Your task to perform on an android device: Open accessibility settings Image 0: 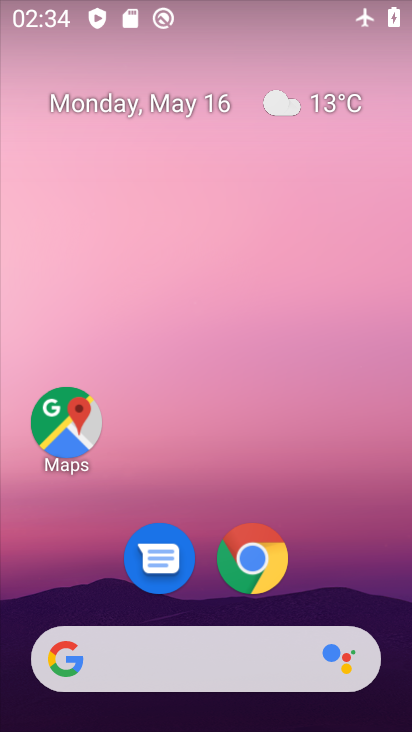
Step 0: click (136, 0)
Your task to perform on an android device: Open accessibility settings Image 1: 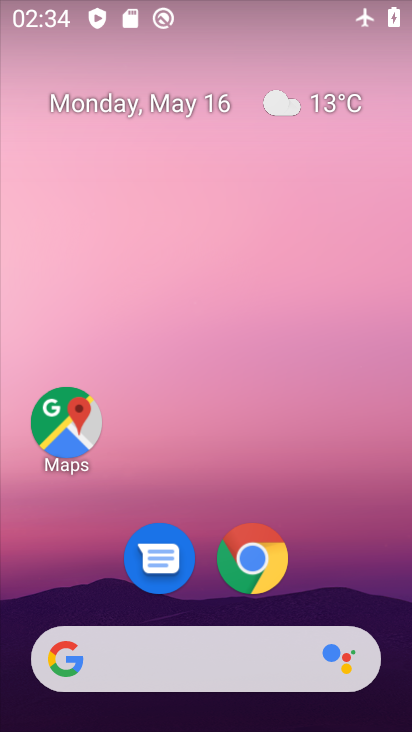
Step 1: drag from (209, 614) to (205, 24)
Your task to perform on an android device: Open accessibility settings Image 2: 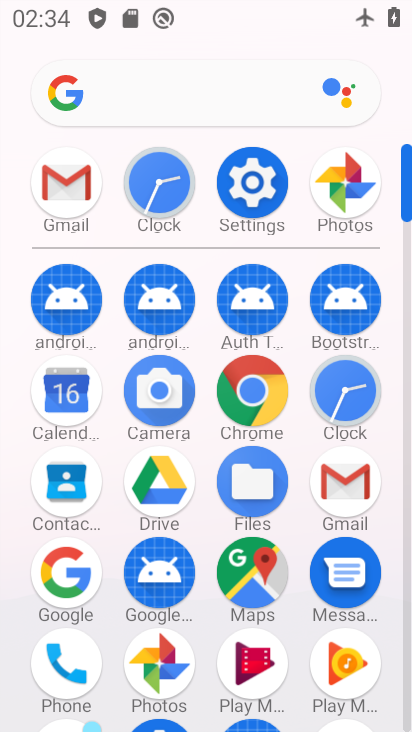
Step 2: click (237, 203)
Your task to perform on an android device: Open accessibility settings Image 3: 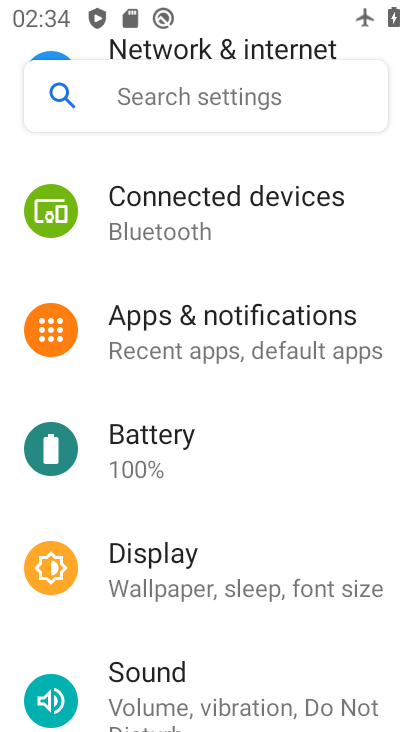
Step 3: drag from (268, 477) to (224, 123)
Your task to perform on an android device: Open accessibility settings Image 4: 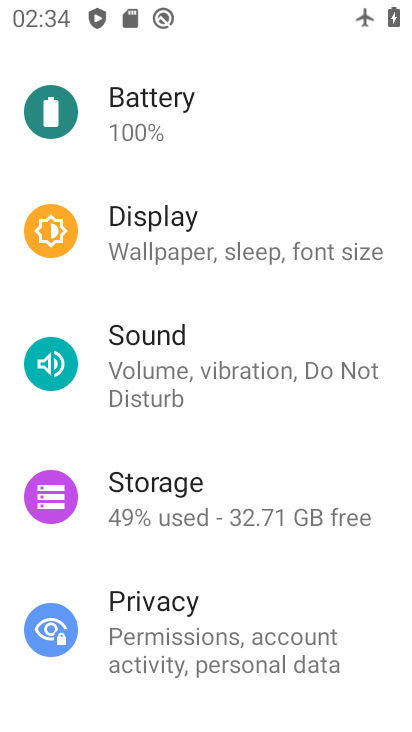
Step 4: drag from (228, 614) to (192, 124)
Your task to perform on an android device: Open accessibility settings Image 5: 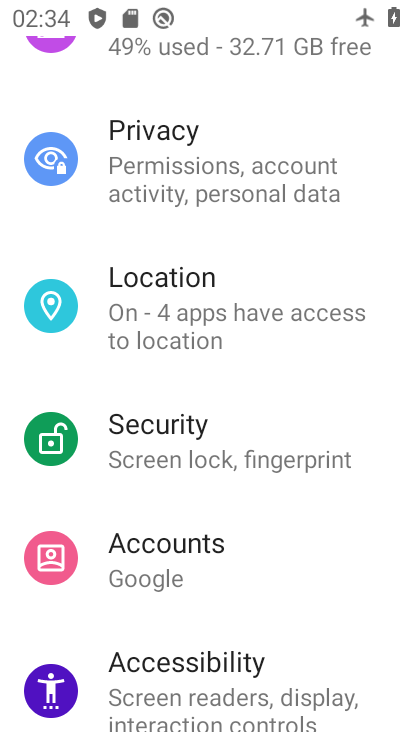
Step 5: drag from (253, 595) to (182, 224)
Your task to perform on an android device: Open accessibility settings Image 6: 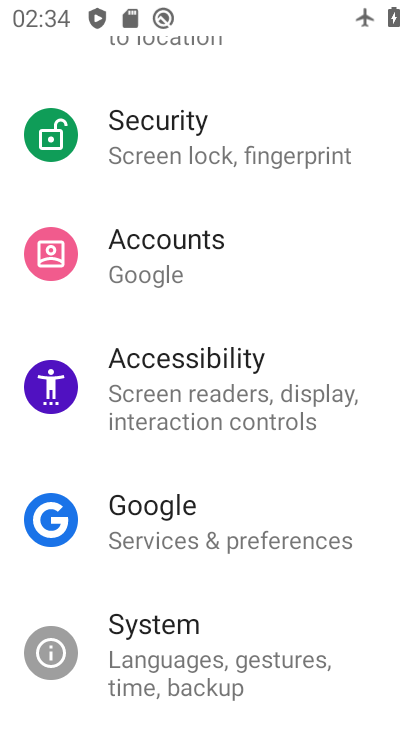
Step 6: click (140, 421)
Your task to perform on an android device: Open accessibility settings Image 7: 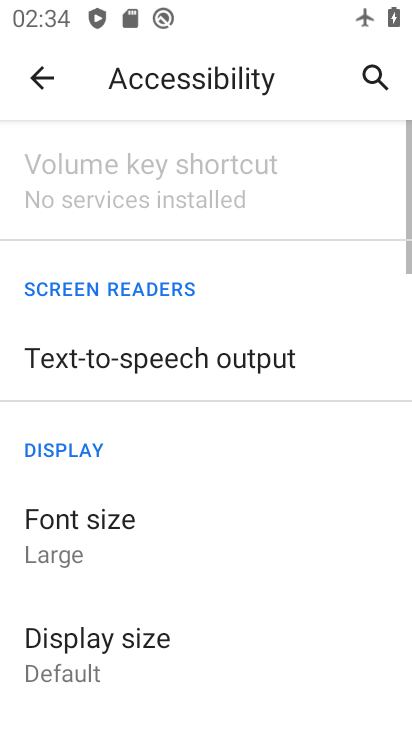
Step 7: task complete